Your task to perform on an android device: turn on data saver in the chrome app Image 0: 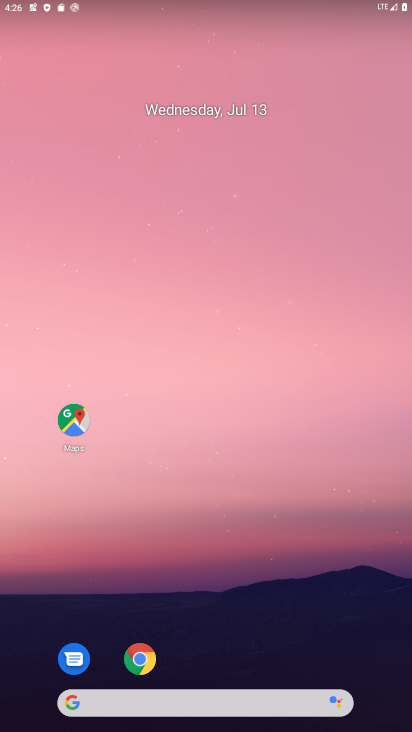
Step 0: press home button
Your task to perform on an android device: turn on data saver in the chrome app Image 1: 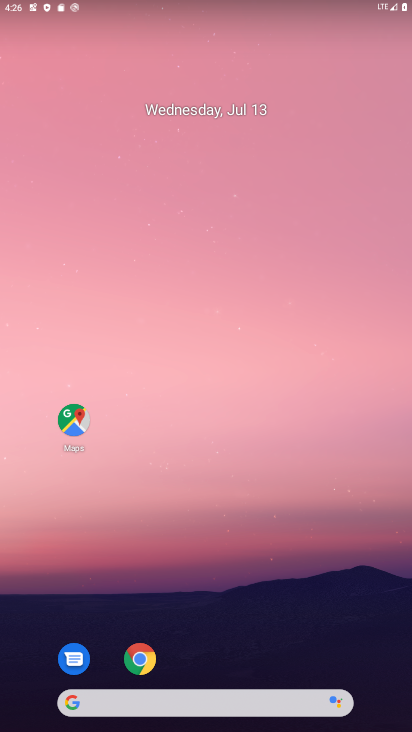
Step 1: click (137, 652)
Your task to perform on an android device: turn on data saver in the chrome app Image 2: 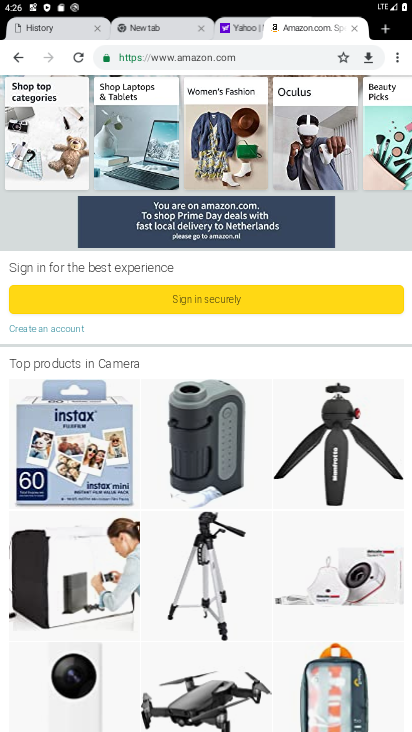
Step 2: click (351, 25)
Your task to perform on an android device: turn on data saver in the chrome app Image 3: 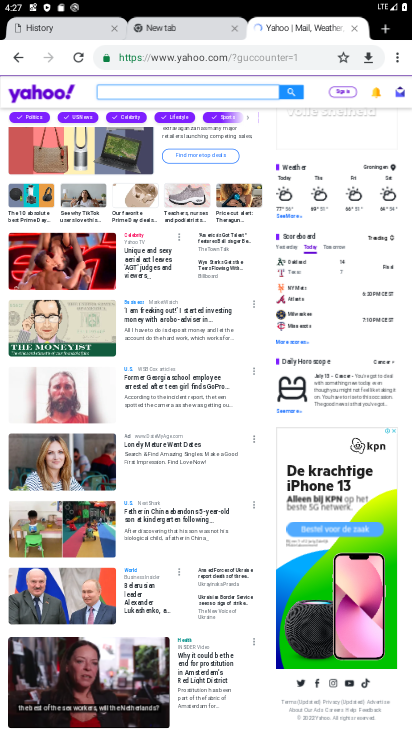
Step 3: click (233, 29)
Your task to perform on an android device: turn on data saver in the chrome app Image 4: 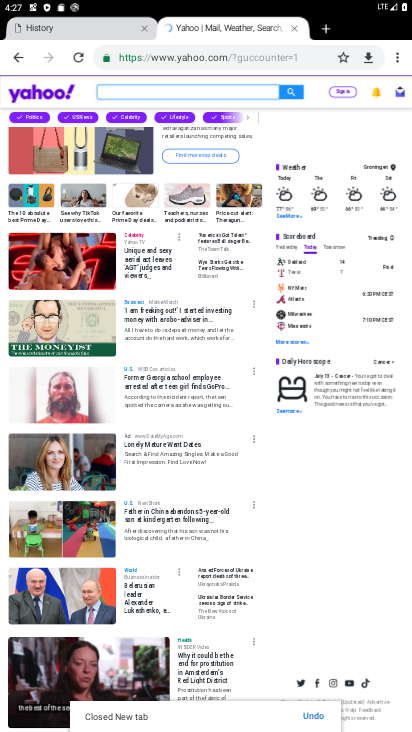
Step 4: click (234, 25)
Your task to perform on an android device: turn on data saver in the chrome app Image 5: 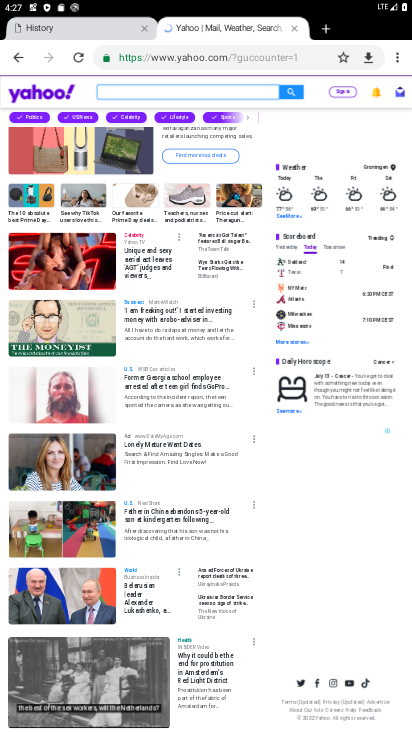
Step 5: click (142, 26)
Your task to perform on an android device: turn on data saver in the chrome app Image 6: 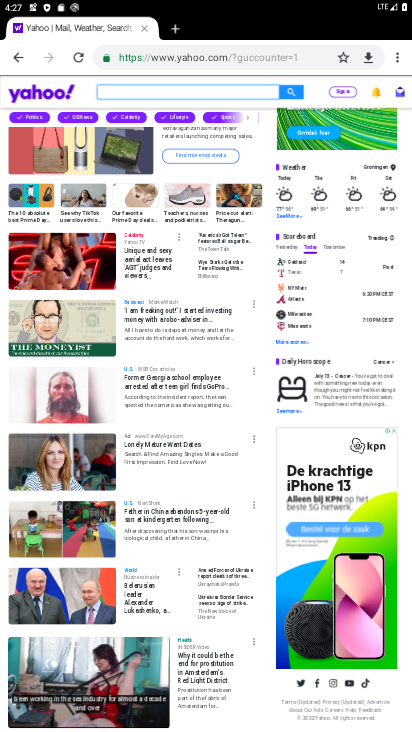
Step 6: click (398, 59)
Your task to perform on an android device: turn on data saver in the chrome app Image 7: 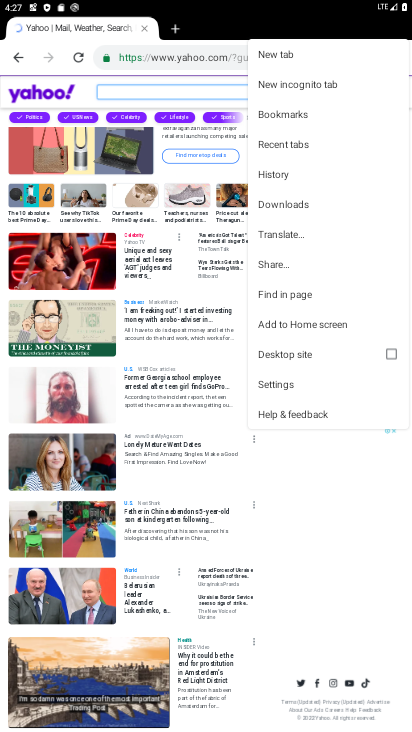
Step 7: click (292, 384)
Your task to perform on an android device: turn on data saver in the chrome app Image 8: 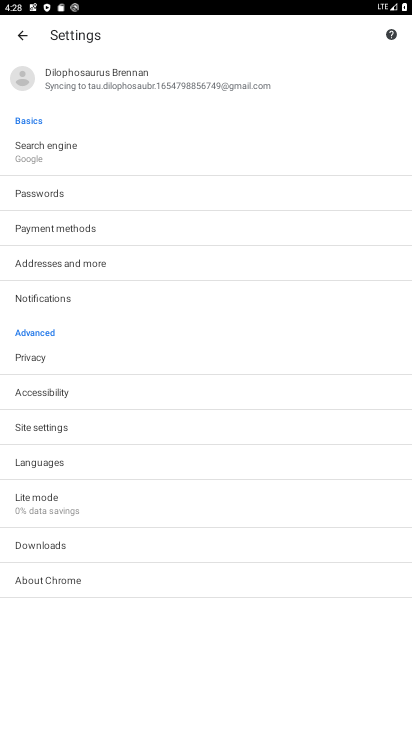
Step 8: click (83, 504)
Your task to perform on an android device: turn on data saver in the chrome app Image 9: 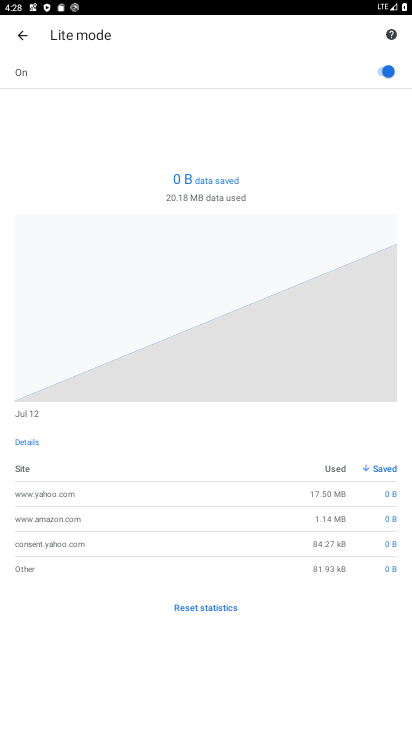
Step 9: task complete